Your task to perform on an android device: delete the emails in spam in the gmail app Image 0: 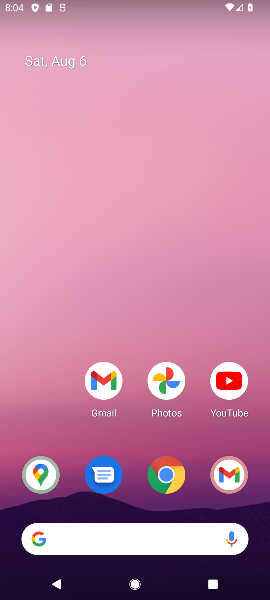
Step 0: click (111, 386)
Your task to perform on an android device: delete the emails in spam in the gmail app Image 1: 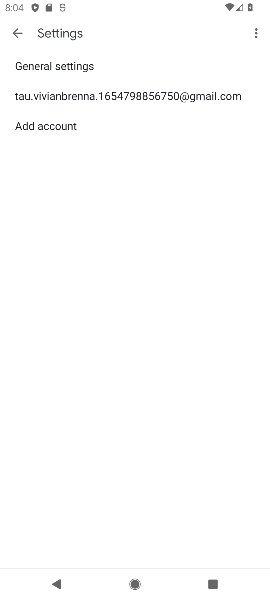
Step 1: click (15, 36)
Your task to perform on an android device: delete the emails in spam in the gmail app Image 2: 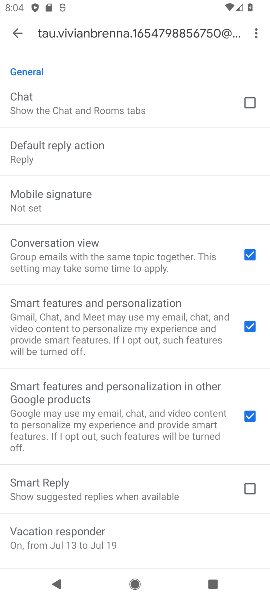
Step 2: click (19, 35)
Your task to perform on an android device: delete the emails in spam in the gmail app Image 3: 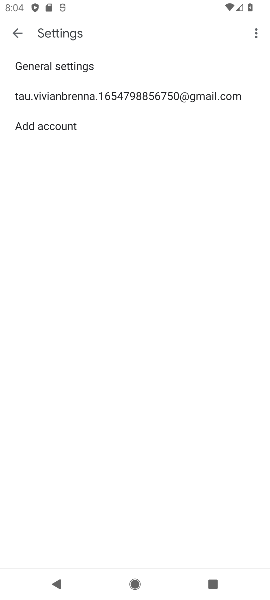
Step 3: click (13, 29)
Your task to perform on an android device: delete the emails in spam in the gmail app Image 4: 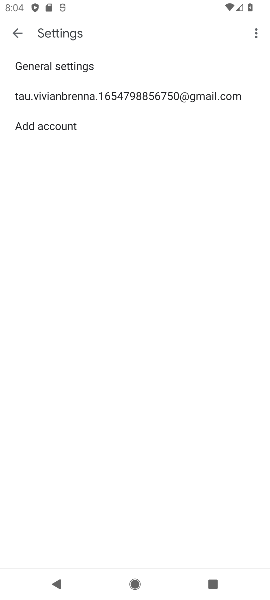
Step 4: click (13, 29)
Your task to perform on an android device: delete the emails in spam in the gmail app Image 5: 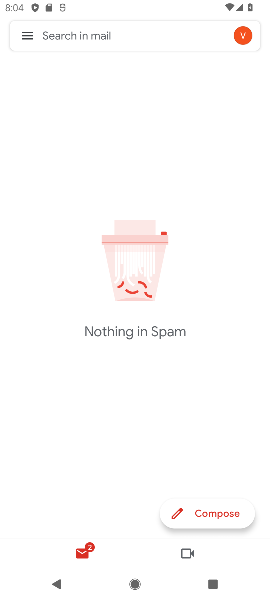
Step 5: task complete